Your task to perform on an android device: Open battery settings Image 0: 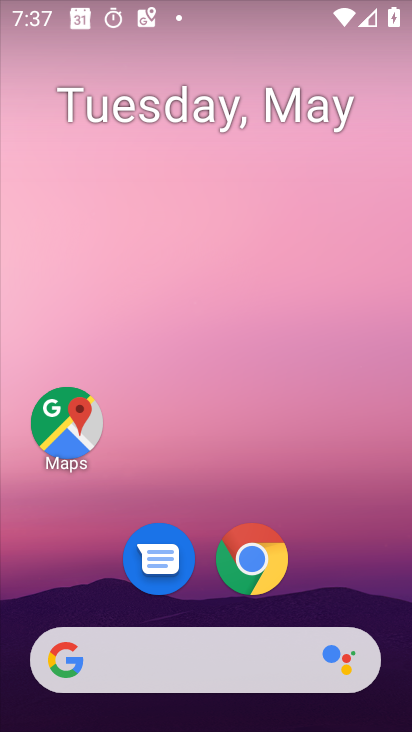
Step 0: drag from (379, 632) to (351, 18)
Your task to perform on an android device: Open battery settings Image 1: 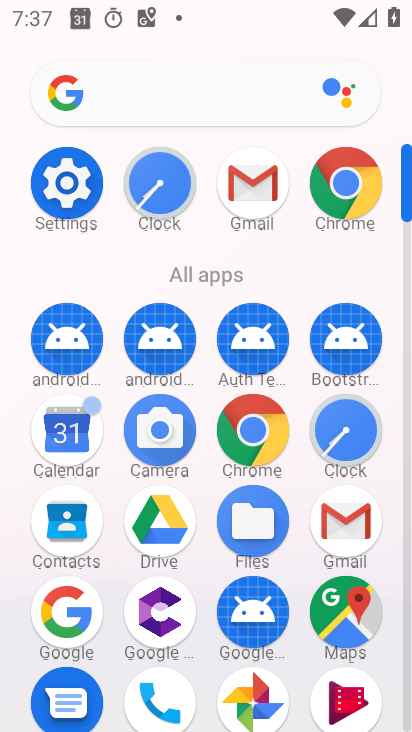
Step 1: click (87, 204)
Your task to perform on an android device: Open battery settings Image 2: 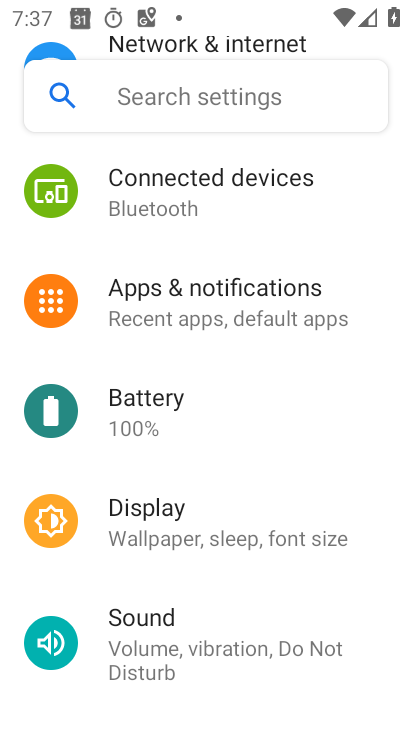
Step 2: click (199, 405)
Your task to perform on an android device: Open battery settings Image 3: 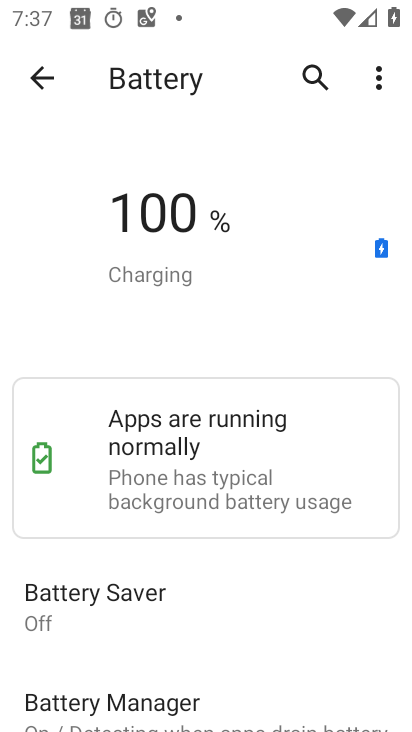
Step 3: task complete